Your task to perform on an android device: Find coffee shops on Maps Image 0: 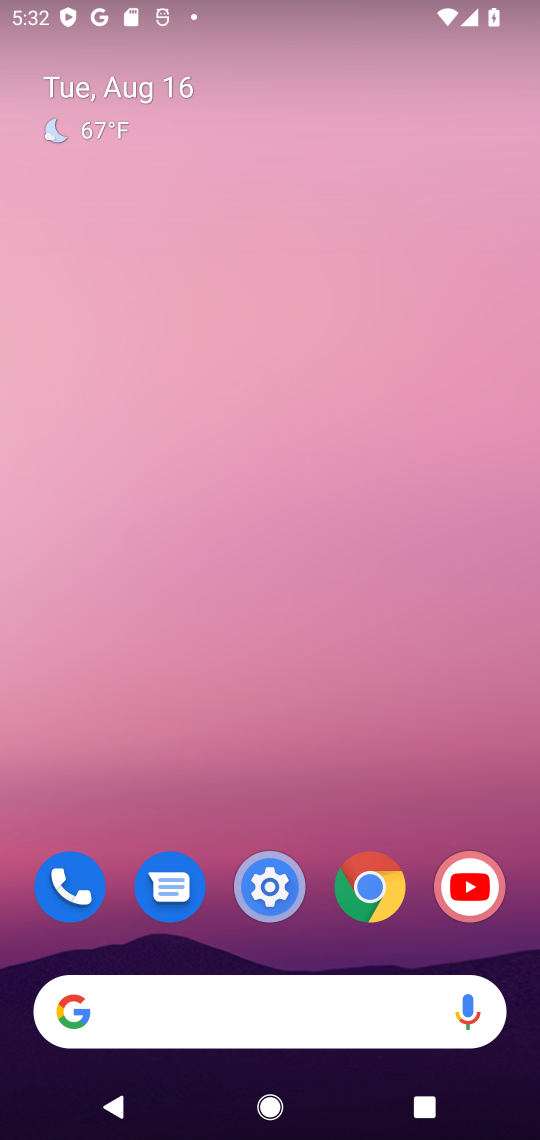
Step 0: drag from (349, 798) to (352, 15)
Your task to perform on an android device: Find coffee shops on Maps Image 1: 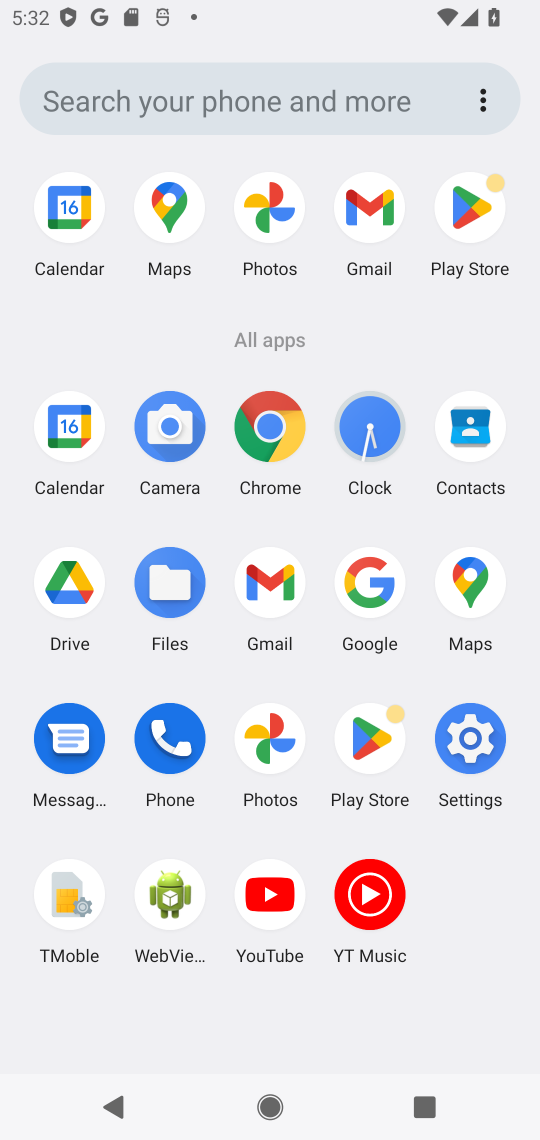
Step 1: click (461, 583)
Your task to perform on an android device: Find coffee shops on Maps Image 2: 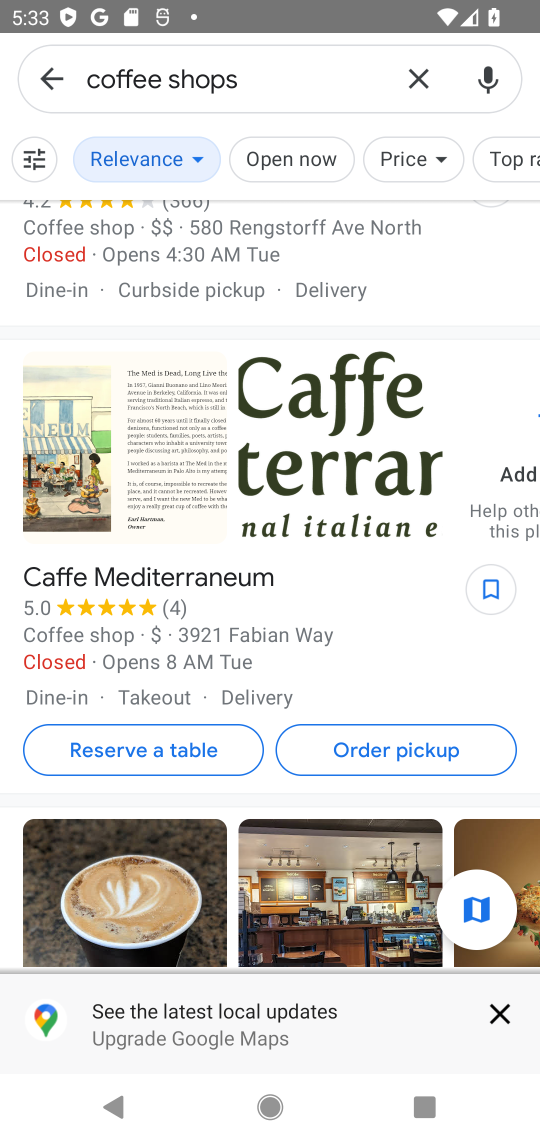
Step 2: task complete